Your task to perform on an android device: Do I have any events this weekend? Image 0: 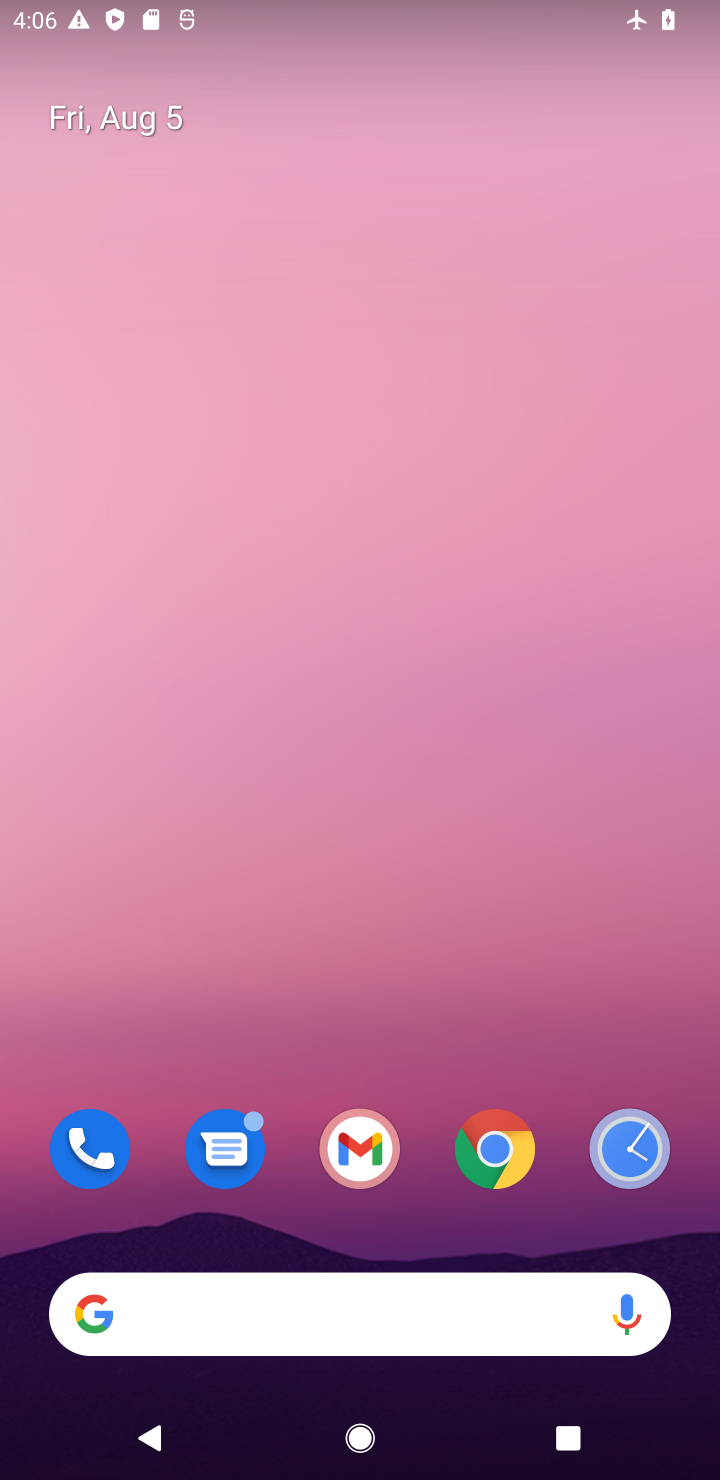
Step 0: drag from (308, 1184) to (399, 187)
Your task to perform on an android device: Do I have any events this weekend? Image 1: 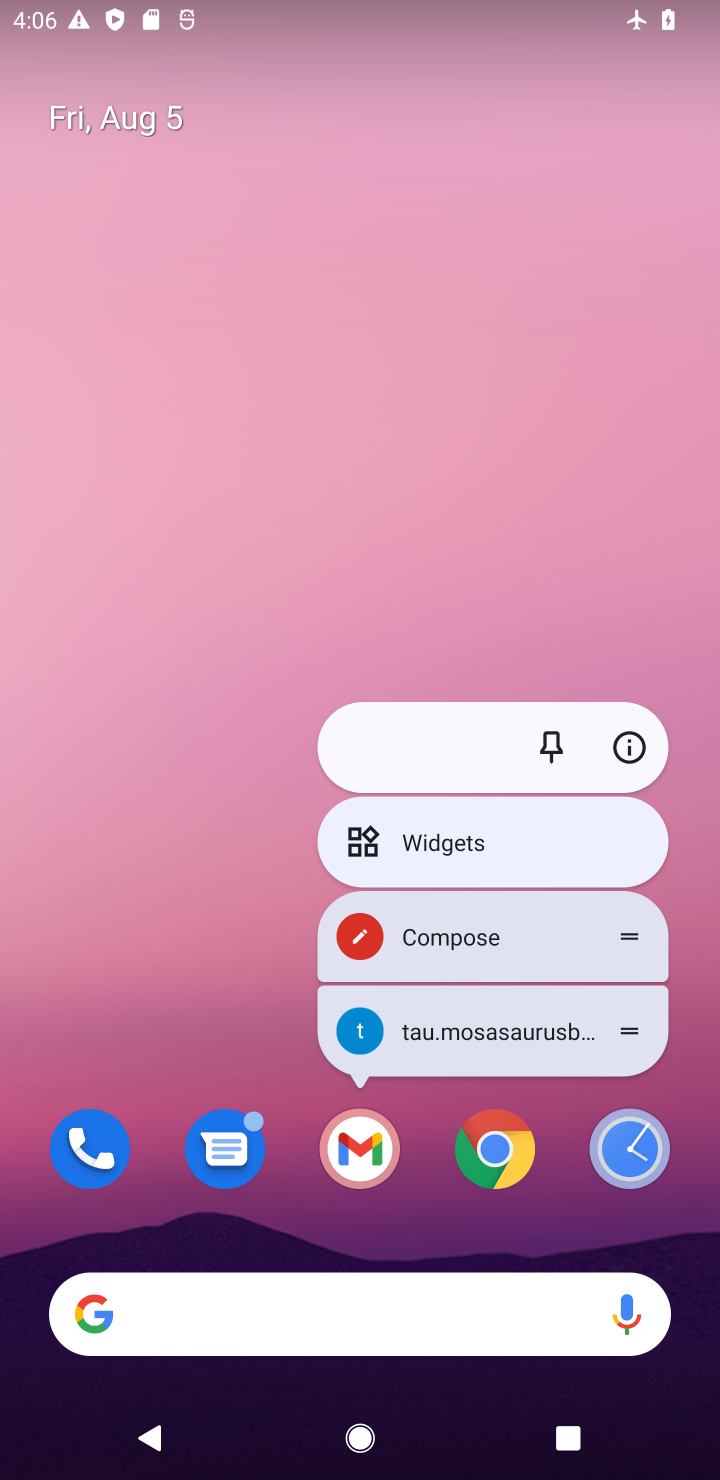
Step 1: drag from (215, 943) to (327, 167)
Your task to perform on an android device: Do I have any events this weekend? Image 2: 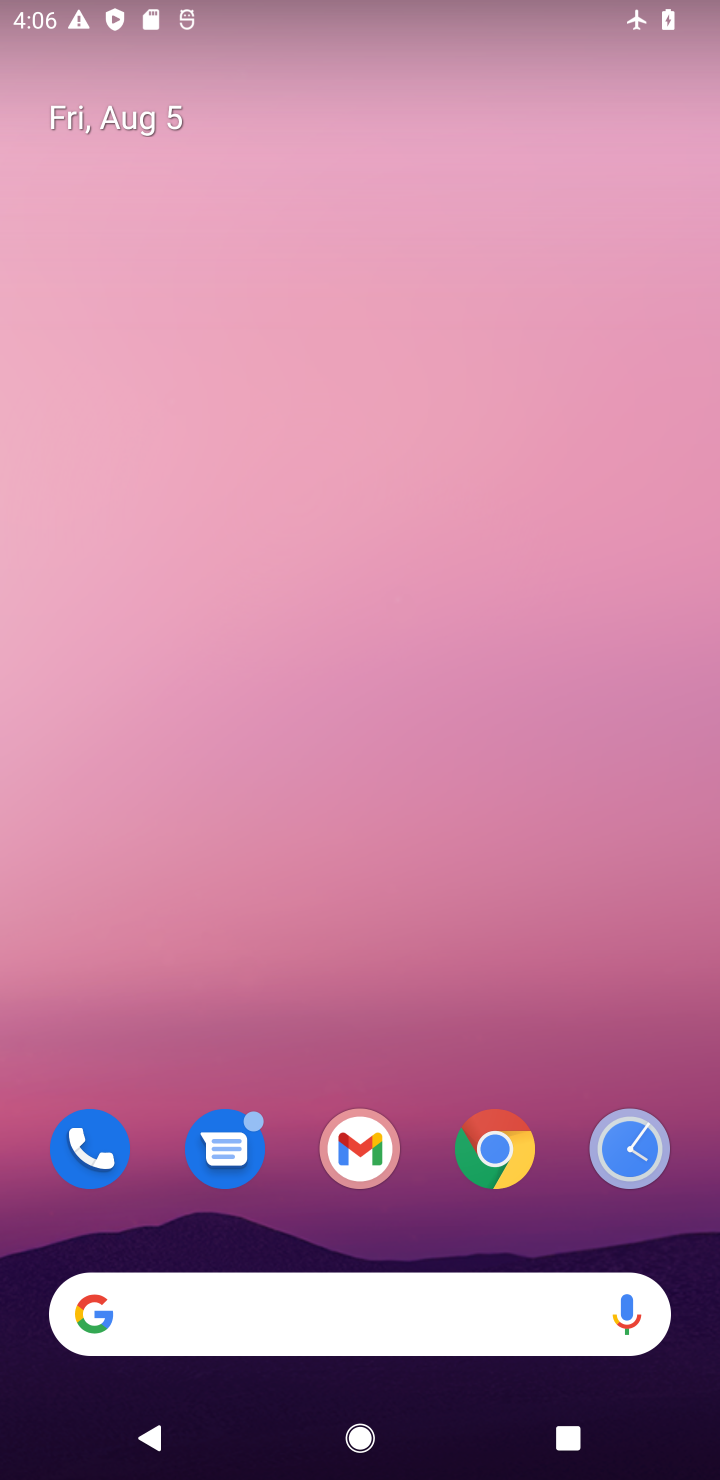
Step 2: drag from (294, 1238) to (353, 1)
Your task to perform on an android device: Do I have any events this weekend? Image 3: 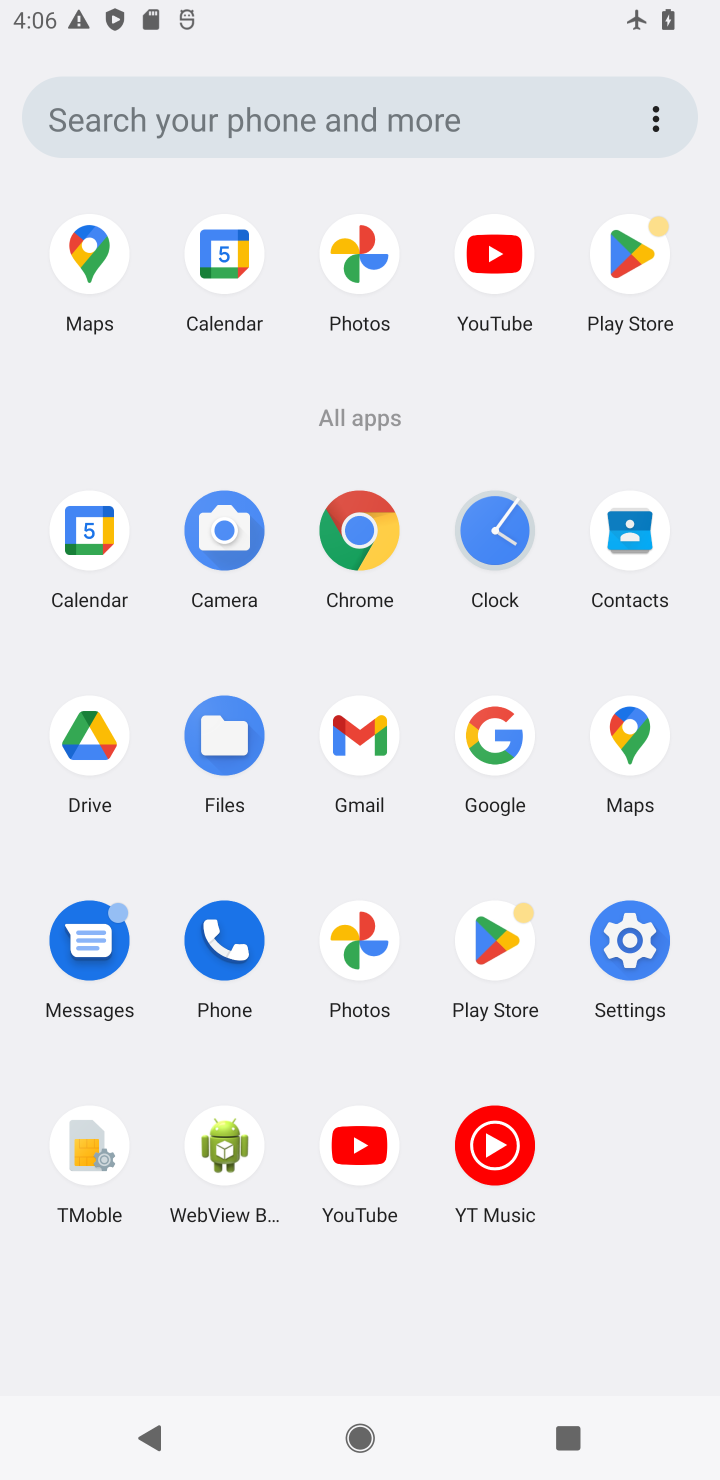
Step 3: click (98, 541)
Your task to perform on an android device: Do I have any events this weekend? Image 4: 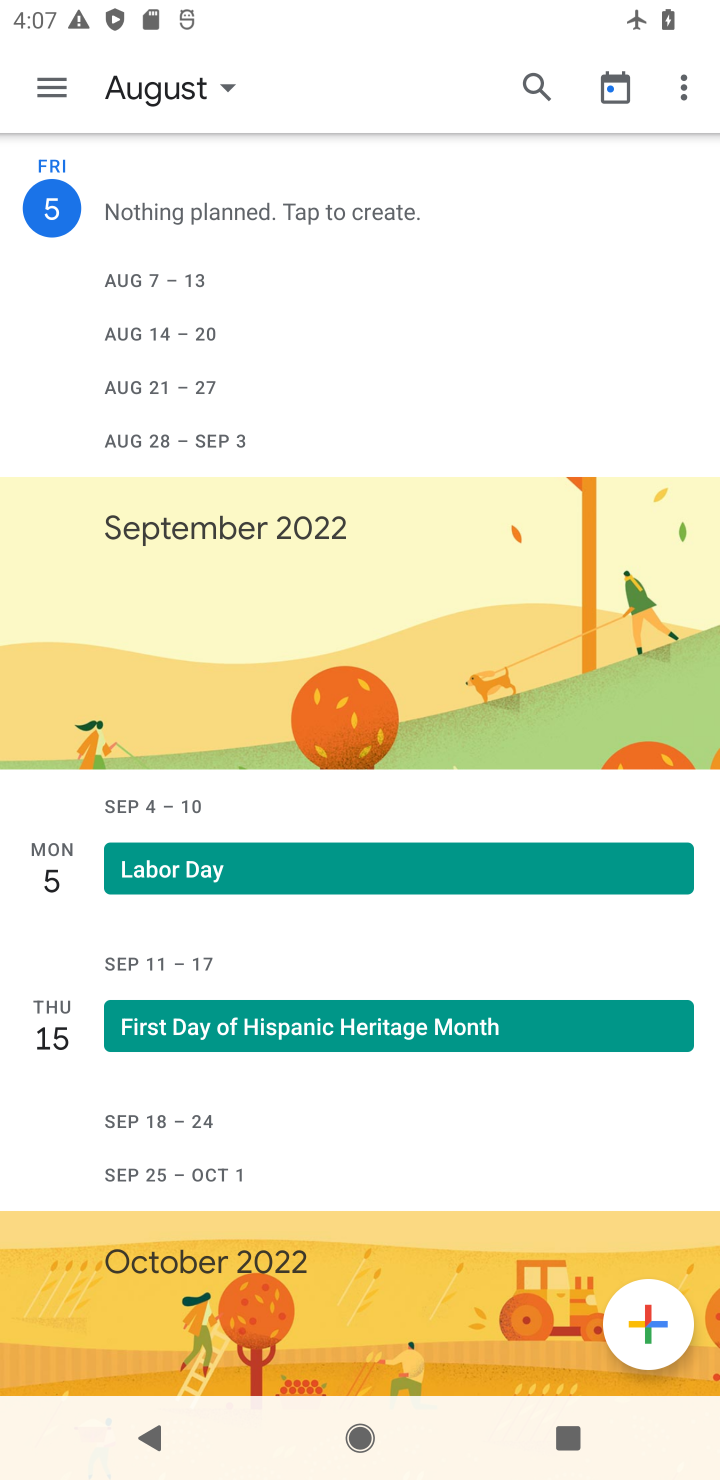
Step 4: click (205, 82)
Your task to perform on an android device: Do I have any events this weekend? Image 5: 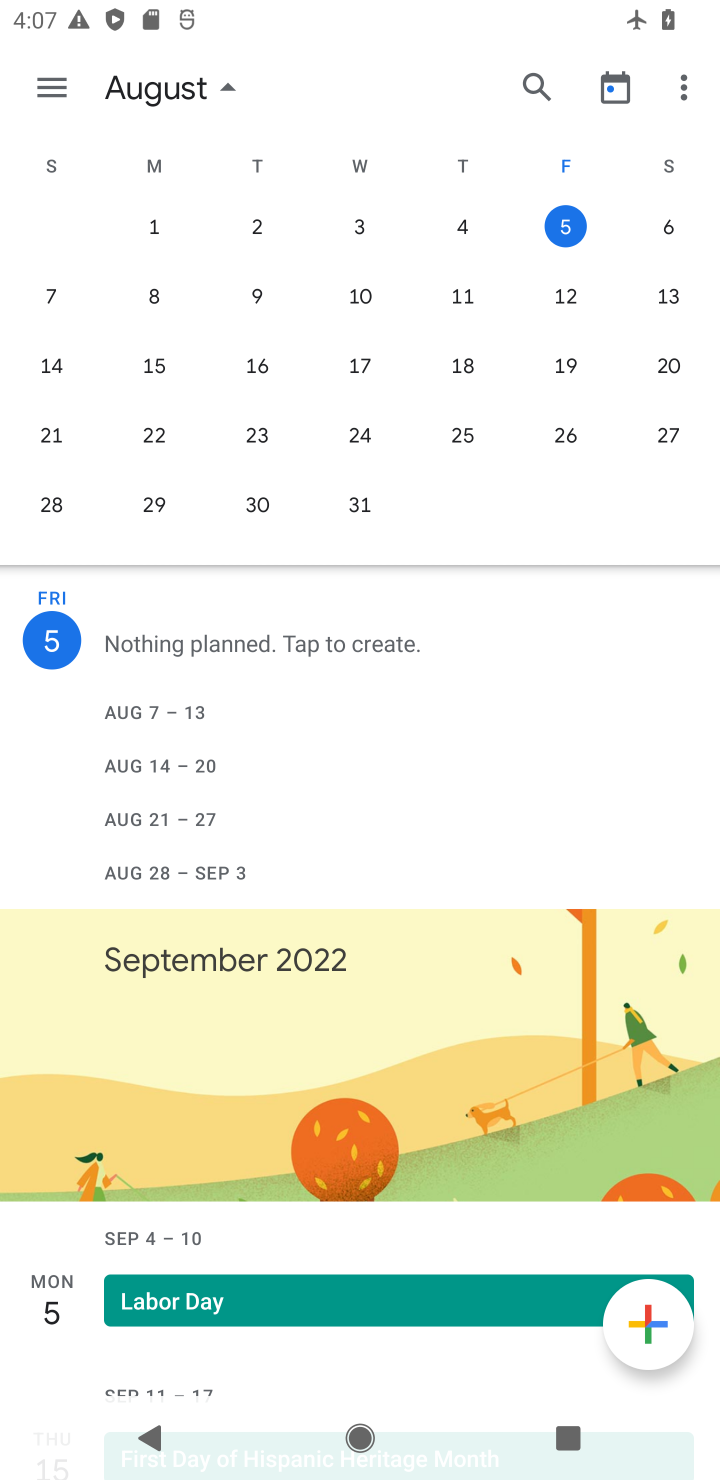
Step 5: click (671, 223)
Your task to perform on an android device: Do I have any events this weekend? Image 6: 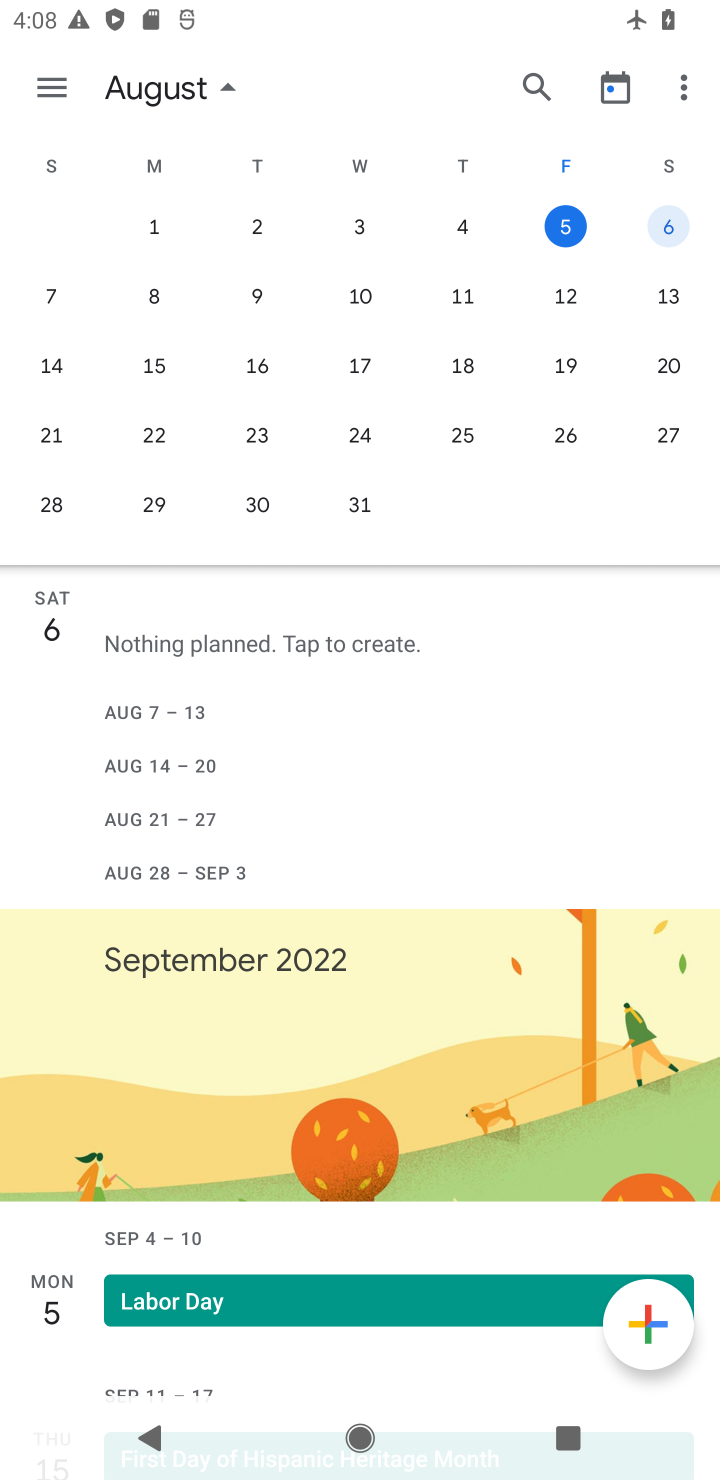
Step 6: task complete